Your task to perform on an android device: turn pop-ups on in chrome Image 0: 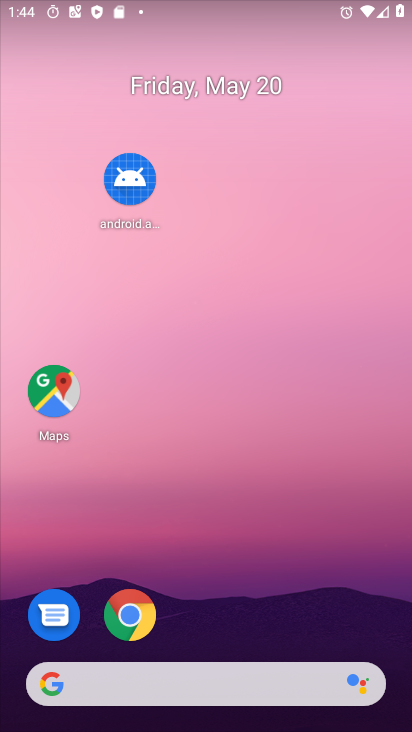
Step 0: click (125, 601)
Your task to perform on an android device: turn pop-ups on in chrome Image 1: 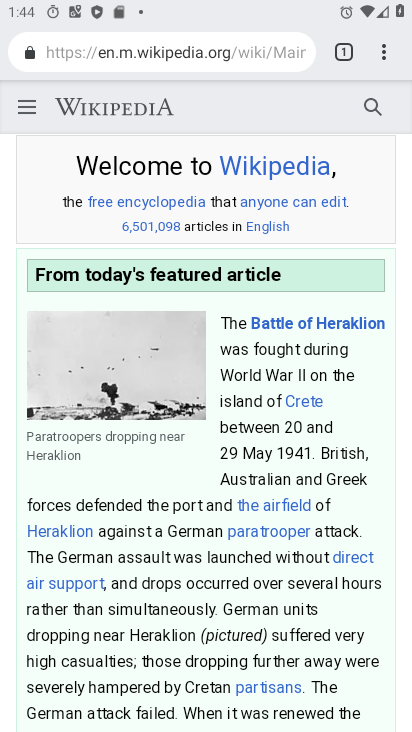
Step 1: click (382, 46)
Your task to perform on an android device: turn pop-ups on in chrome Image 2: 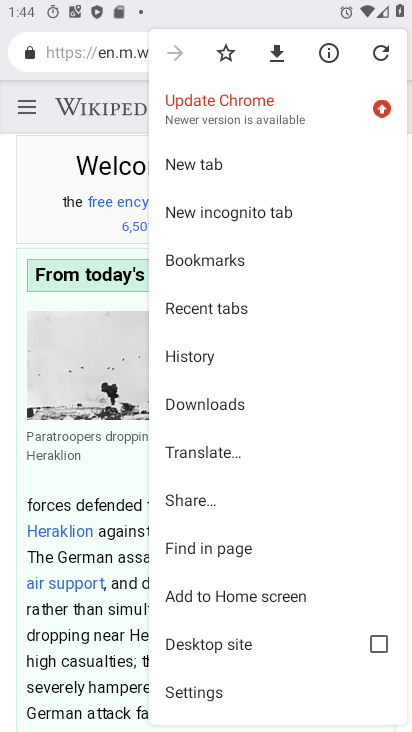
Step 2: click (198, 682)
Your task to perform on an android device: turn pop-ups on in chrome Image 3: 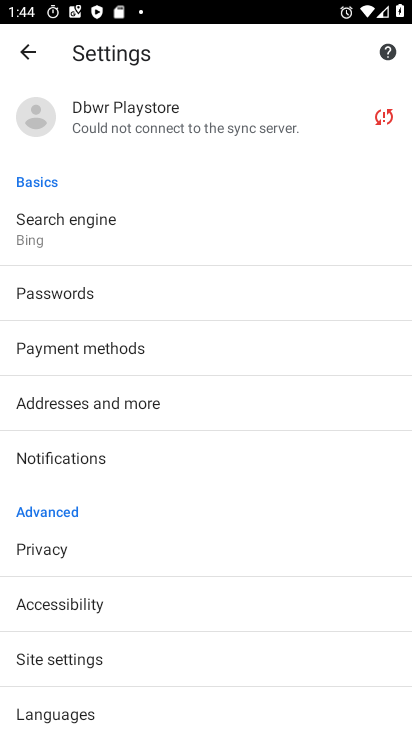
Step 3: click (141, 660)
Your task to perform on an android device: turn pop-ups on in chrome Image 4: 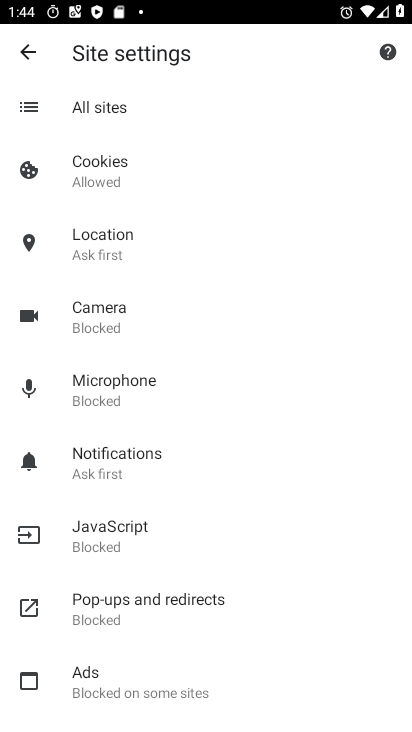
Step 4: click (206, 592)
Your task to perform on an android device: turn pop-ups on in chrome Image 5: 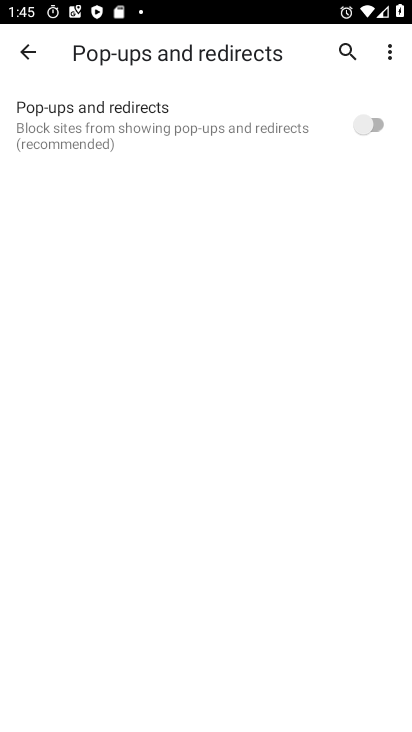
Step 5: click (363, 132)
Your task to perform on an android device: turn pop-ups on in chrome Image 6: 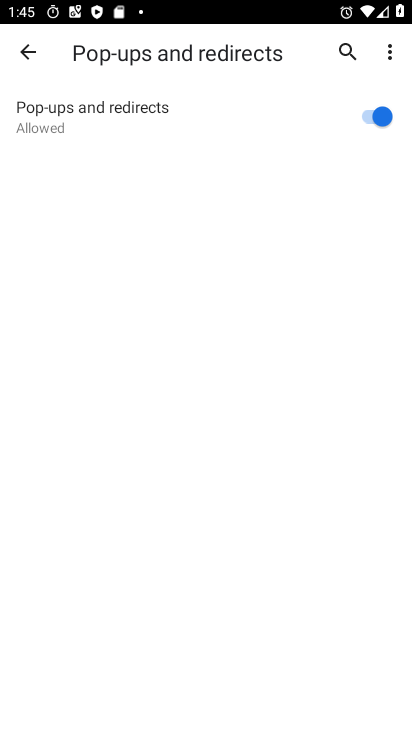
Step 6: task complete